Your task to perform on an android device: Open the phone app and click the voicemail tab. Image 0: 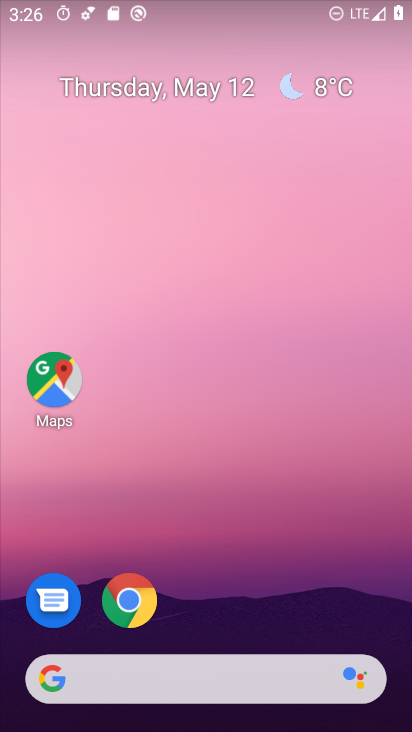
Step 0: drag from (236, 718) to (236, 167)
Your task to perform on an android device: Open the phone app and click the voicemail tab. Image 1: 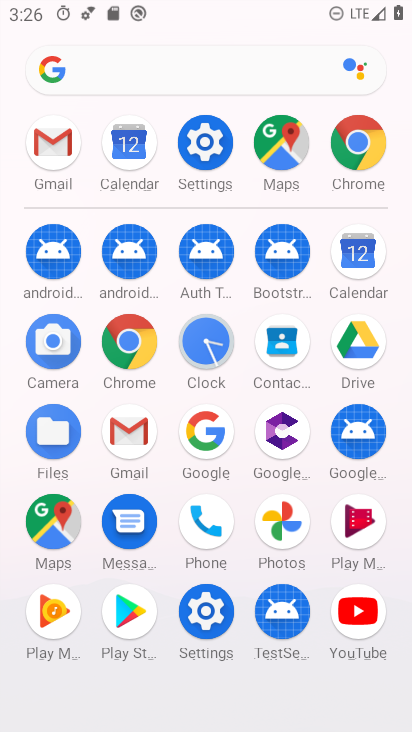
Step 1: click (201, 517)
Your task to perform on an android device: Open the phone app and click the voicemail tab. Image 2: 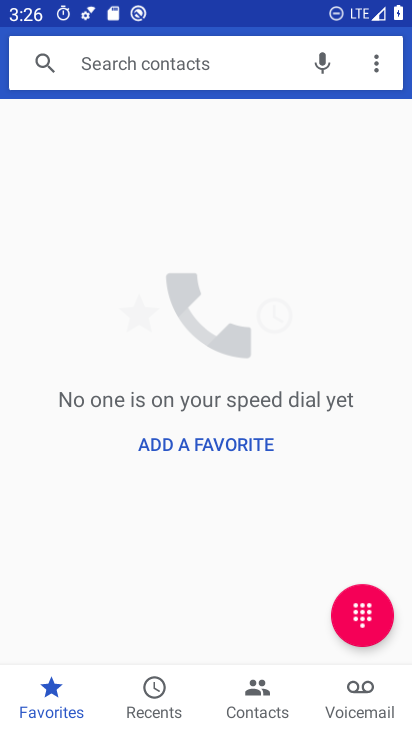
Step 2: click (365, 699)
Your task to perform on an android device: Open the phone app and click the voicemail tab. Image 3: 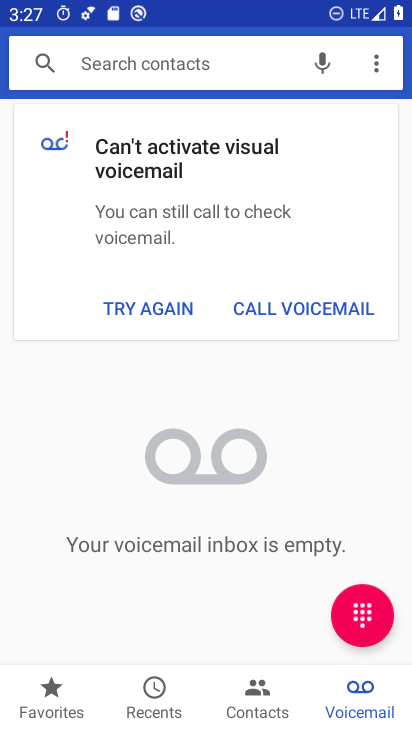
Step 3: task complete